Your task to perform on an android device: Go to notification settings Image 0: 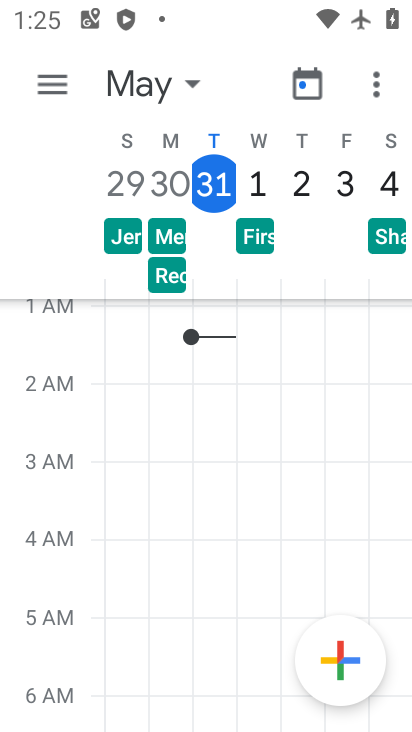
Step 0: press home button
Your task to perform on an android device: Go to notification settings Image 1: 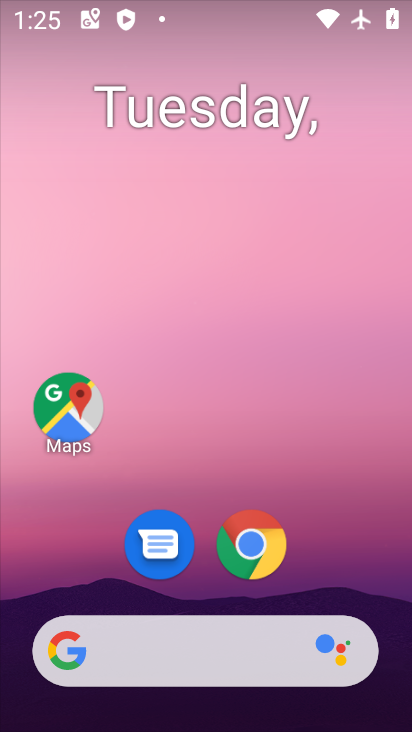
Step 1: drag from (391, 609) to (309, 86)
Your task to perform on an android device: Go to notification settings Image 2: 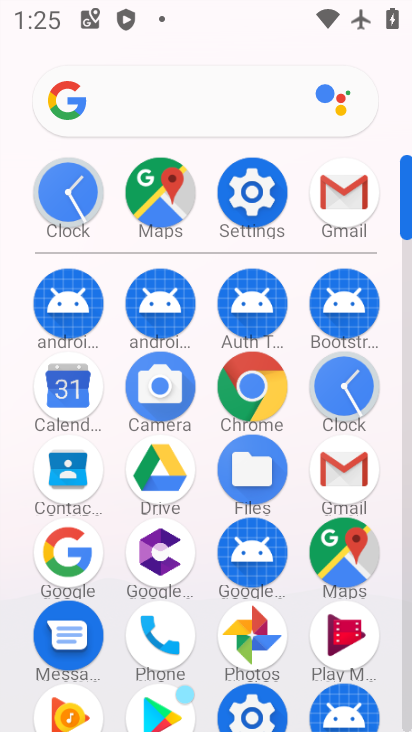
Step 2: click (407, 699)
Your task to perform on an android device: Go to notification settings Image 3: 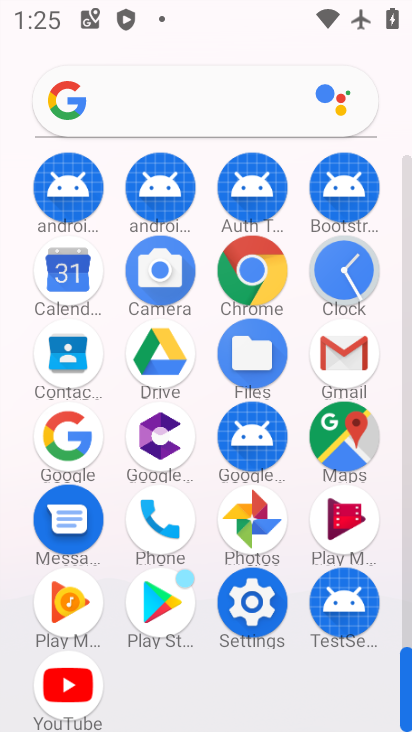
Step 3: click (247, 603)
Your task to perform on an android device: Go to notification settings Image 4: 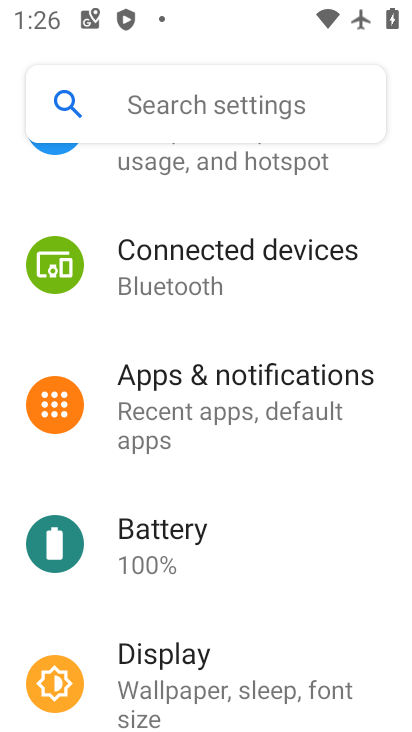
Step 4: click (200, 380)
Your task to perform on an android device: Go to notification settings Image 5: 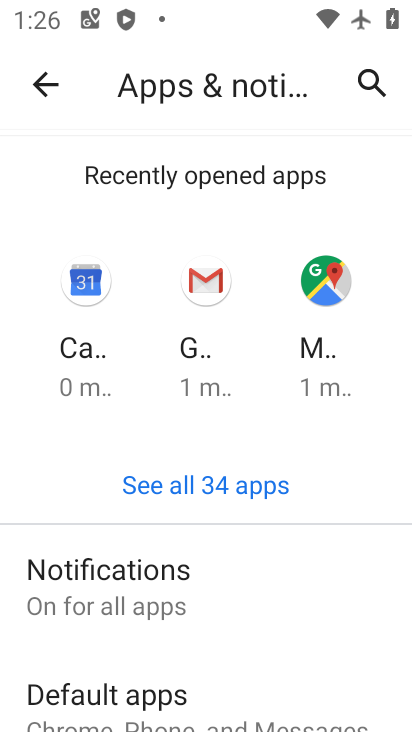
Step 5: click (72, 583)
Your task to perform on an android device: Go to notification settings Image 6: 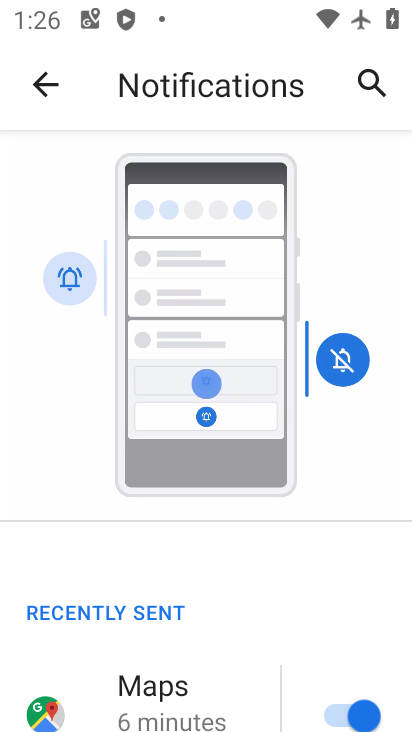
Step 6: drag from (272, 696) to (221, 192)
Your task to perform on an android device: Go to notification settings Image 7: 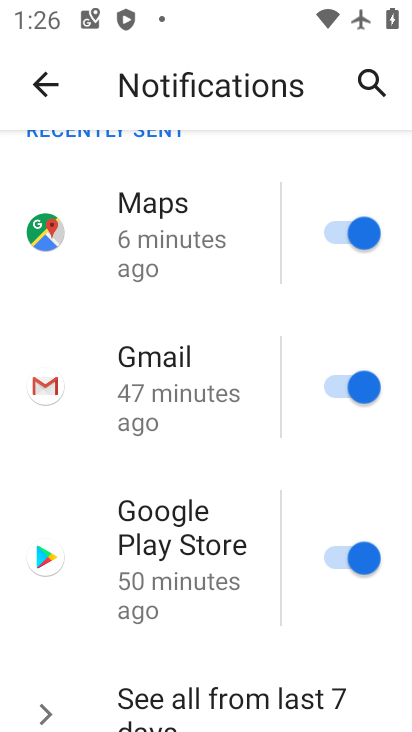
Step 7: drag from (270, 657) to (258, 202)
Your task to perform on an android device: Go to notification settings Image 8: 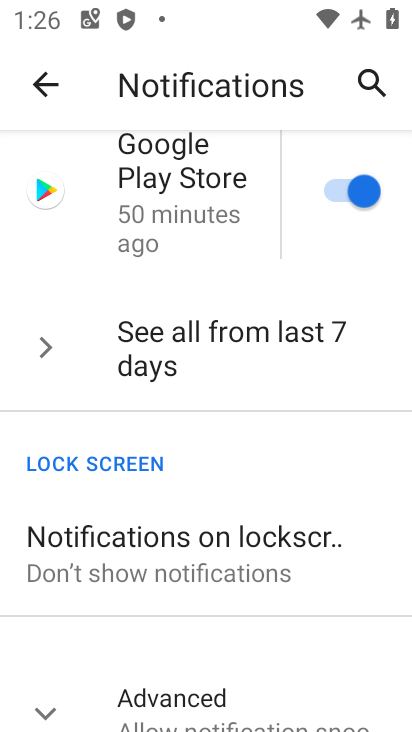
Step 8: drag from (264, 644) to (241, 336)
Your task to perform on an android device: Go to notification settings Image 9: 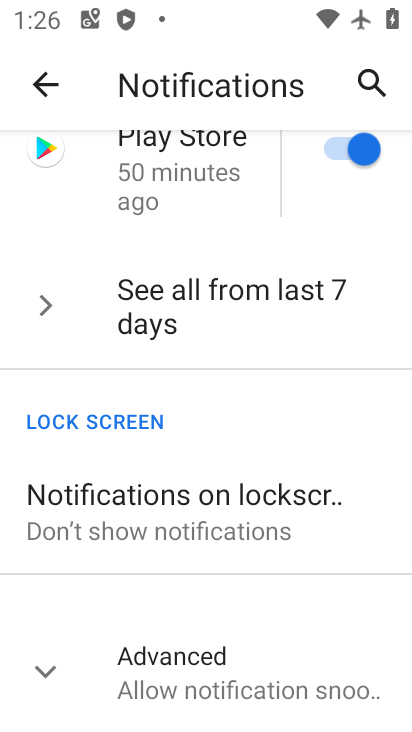
Step 9: click (46, 675)
Your task to perform on an android device: Go to notification settings Image 10: 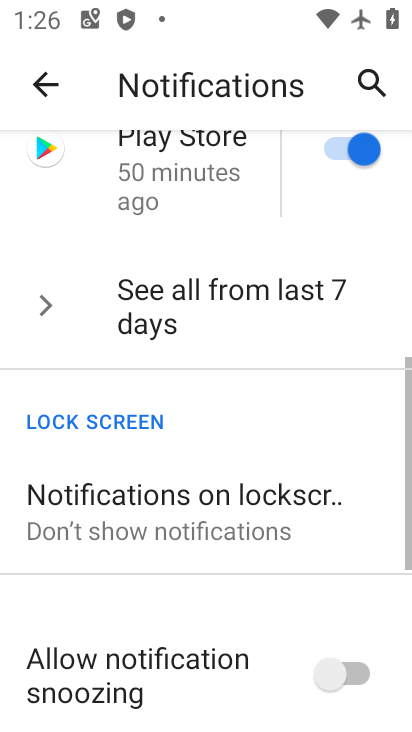
Step 10: task complete